Your task to perform on an android device: Search for rayovac triple a on bestbuy, select the first entry, add it to the cart, then select checkout. Image 0: 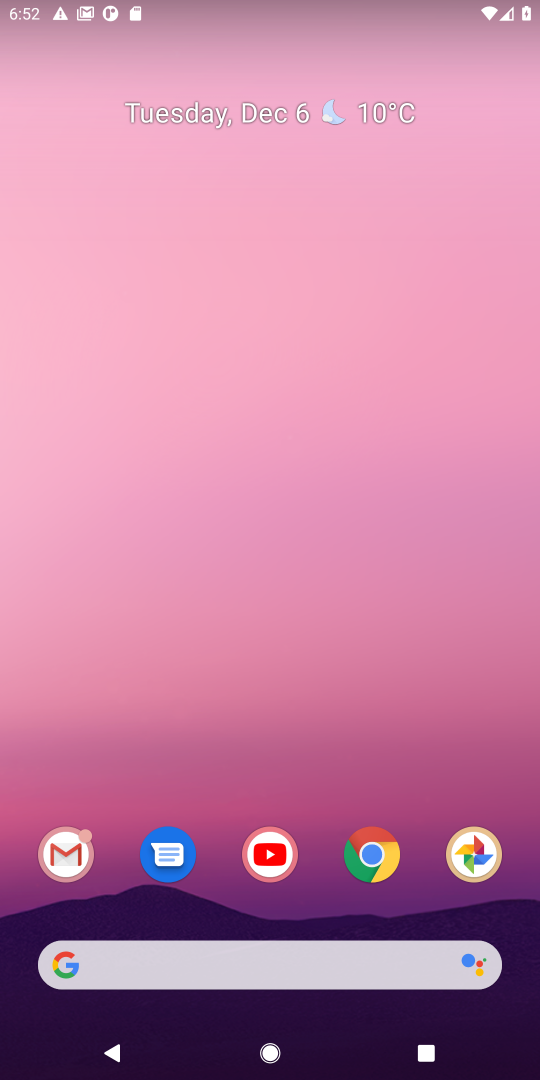
Step 0: click (358, 854)
Your task to perform on an android device: Search for rayovac triple a on bestbuy, select the first entry, add it to the cart, then select checkout. Image 1: 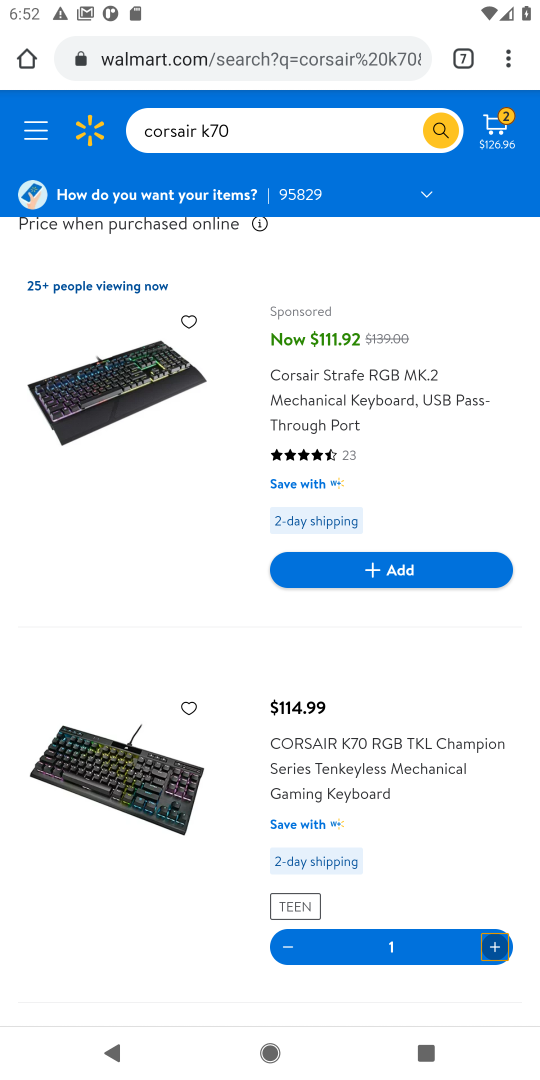
Step 1: click (469, 56)
Your task to perform on an android device: Search for rayovac triple a on bestbuy, select the first entry, add it to the cart, then select checkout. Image 2: 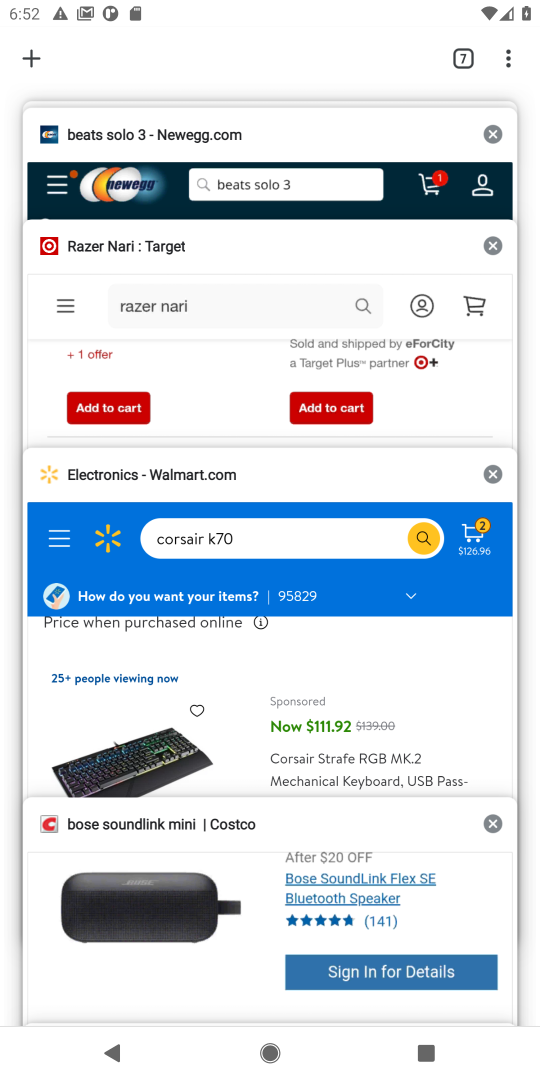
Step 2: drag from (273, 103) to (223, 487)
Your task to perform on an android device: Search for rayovac triple a on bestbuy, select the first entry, add it to the cart, then select checkout. Image 3: 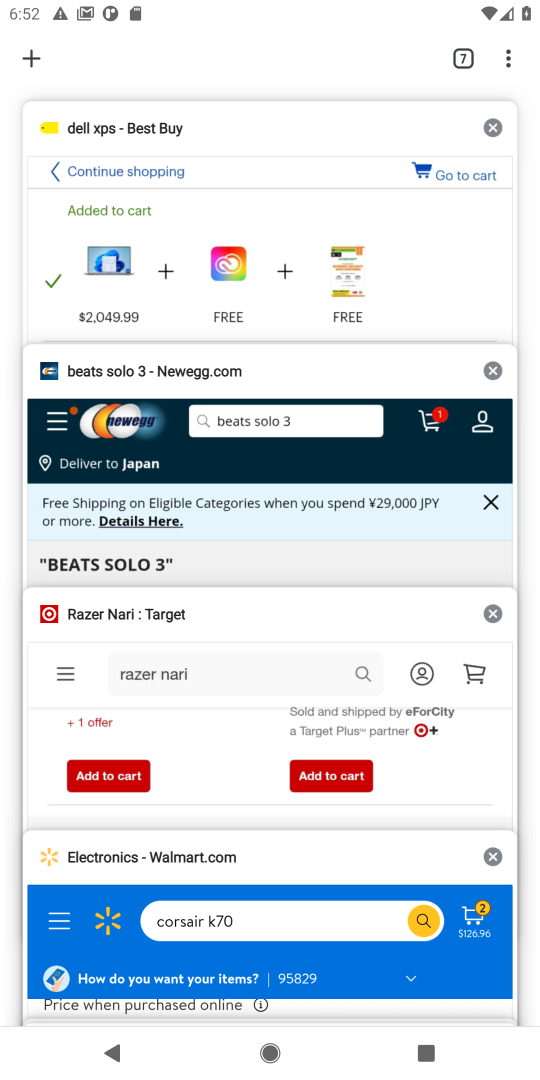
Step 3: click (265, 248)
Your task to perform on an android device: Search for rayovac triple a on bestbuy, select the first entry, add it to the cart, then select checkout. Image 4: 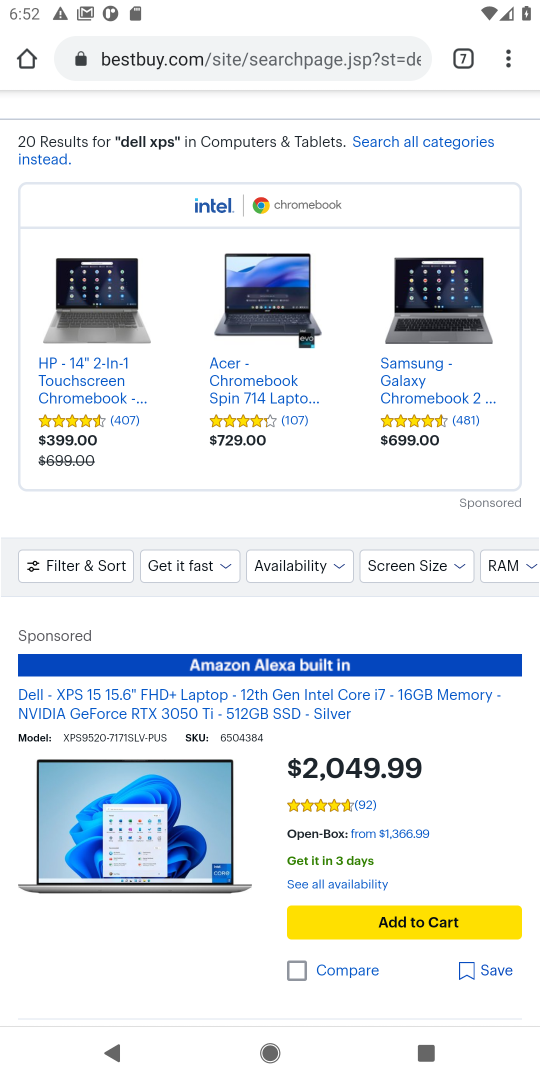
Step 4: drag from (226, 128) to (167, 601)
Your task to perform on an android device: Search for rayovac triple a on bestbuy, select the first entry, add it to the cart, then select checkout. Image 5: 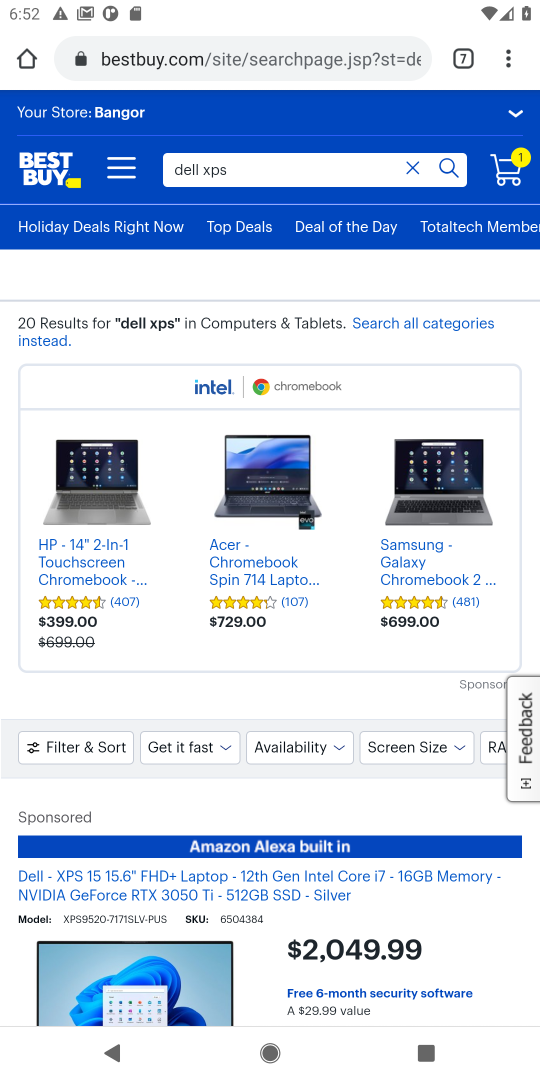
Step 5: click (401, 165)
Your task to perform on an android device: Search for rayovac triple a on bestbuy, select the first entry, add it to the cart, then select checkout. Image 6: 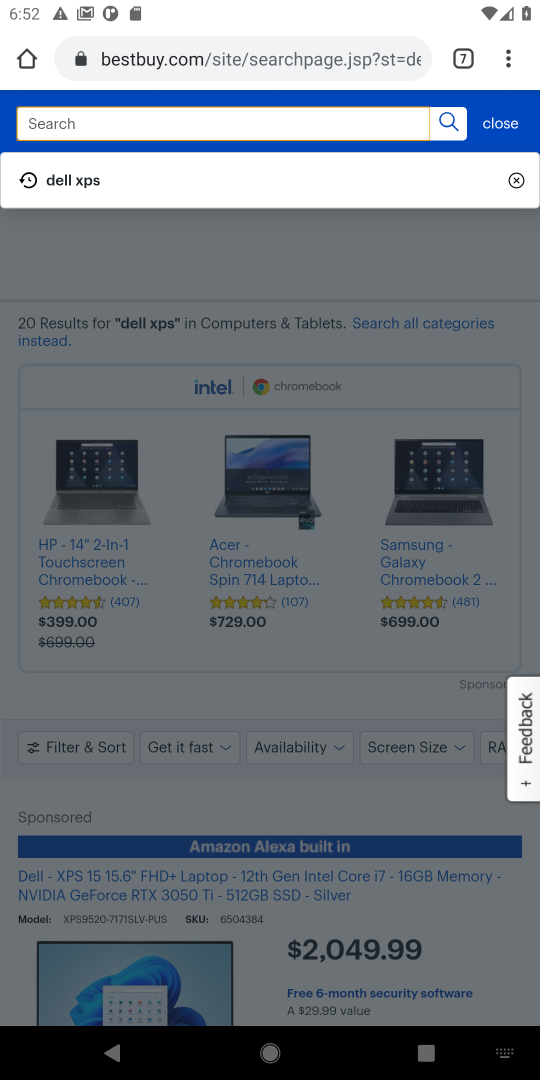
Step 6: type "rayovac triple a"
Your task to perform on an android device: Search for rayovac triple a on bestbuy, select the first entry, add it to the cart, then select checkout. Image 7: 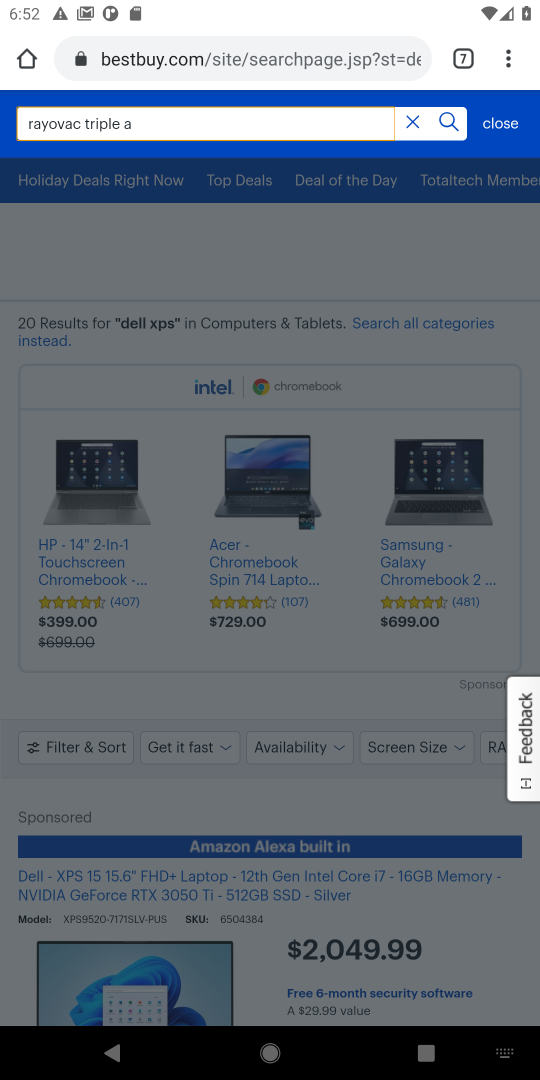
Step 7: click (447, 124)
Your task to perform on an android device: Search for rayovac triple a on bestbuy, select the first entry, add it to the cart, then select checkout. Image 8: 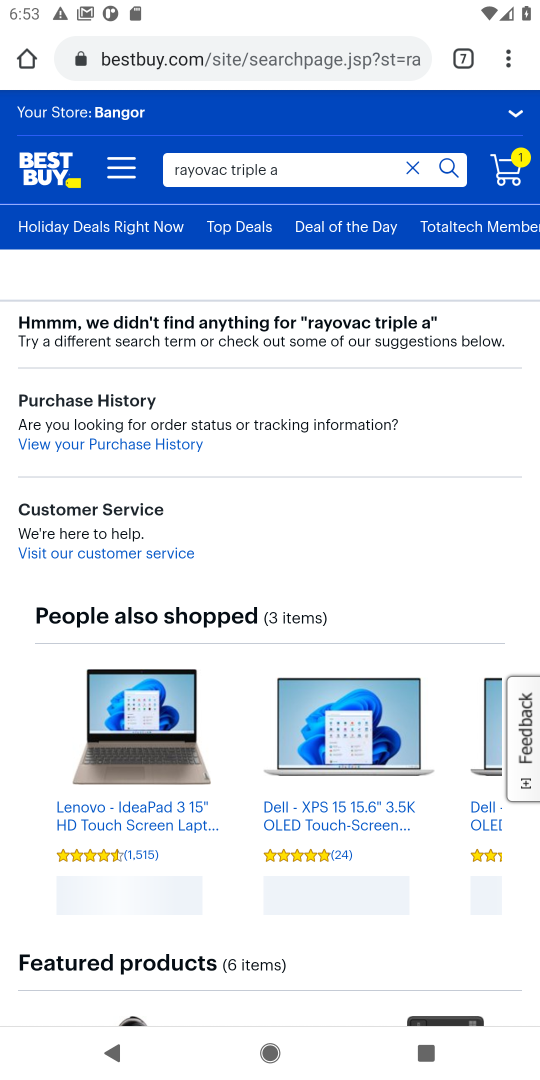
Step 8: task complete